Your task to perform on an android device: open app "McDonald's" (install if not already installed) Image 0: 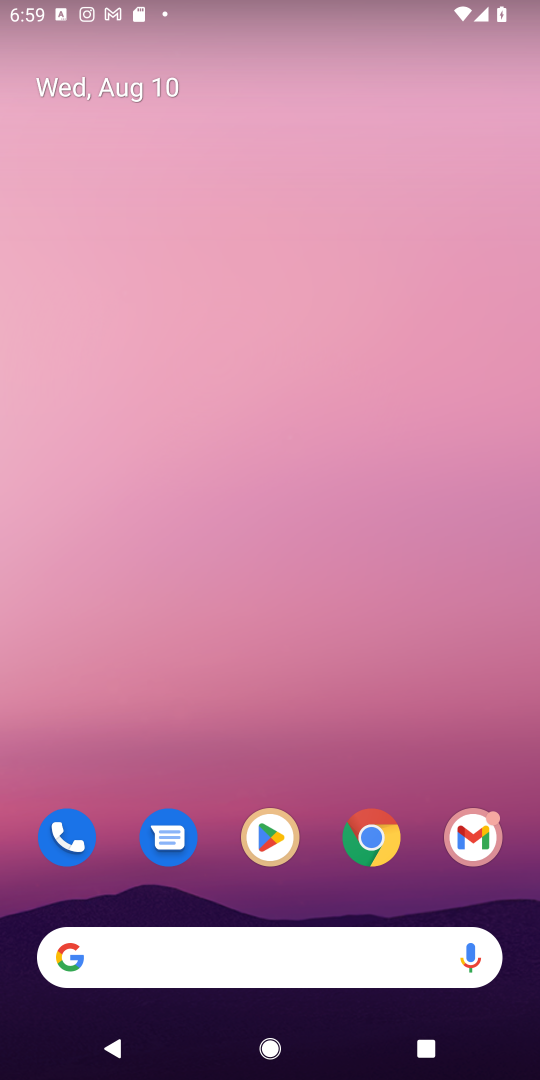
Step 0: click (270, 826)
Your task to perform on an android device: open app "McDonald's" (install if not already installed) Image 1: 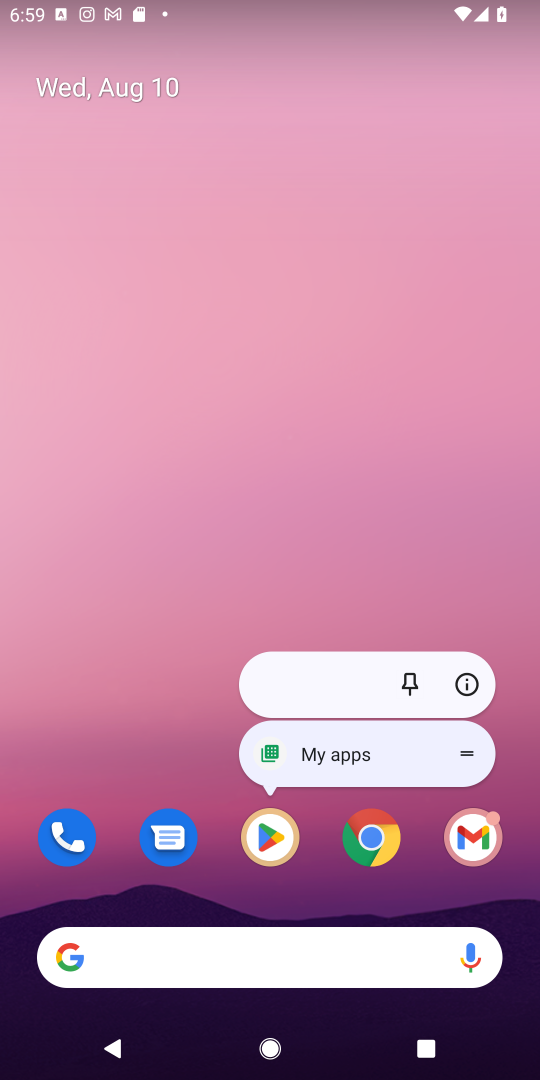
Step 1: click (267, 833)
Your task to perform on an android device: open app "McDonald's" (install if not already installed) Image 2: 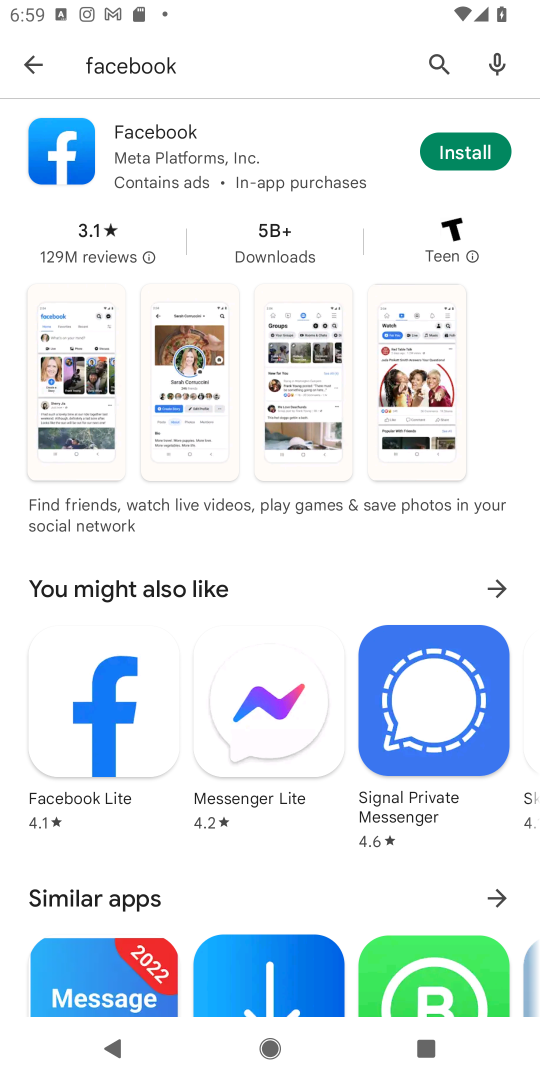
Step 2: click (441, 53)
Your task to perform on an android device: open app "McDonald's" (install if not already installed) Image 3: 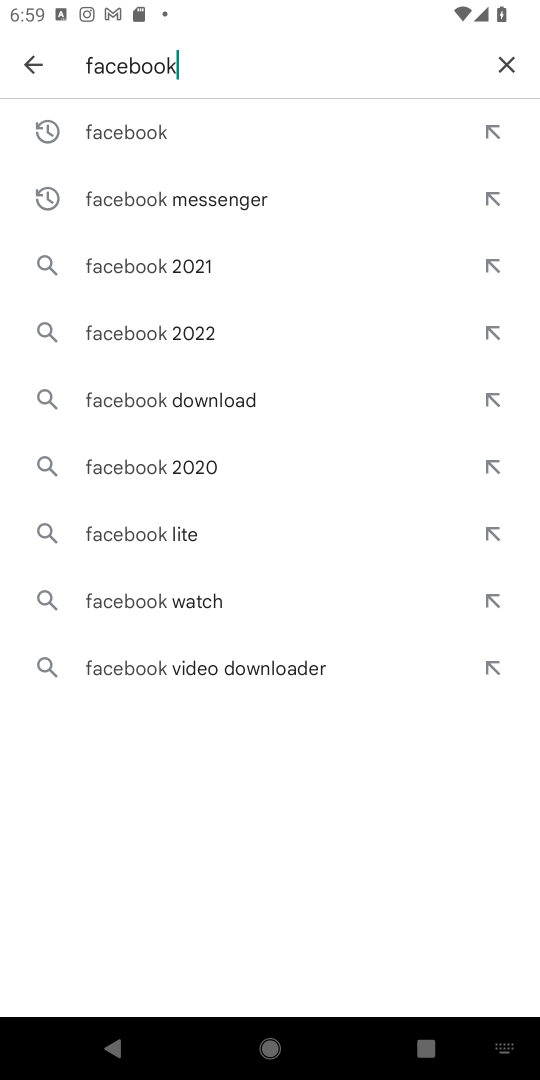
Step 3: click (511, 61)
Your task to perform on an android device: open app "McDonald's" (install if not already installed) Image 4: 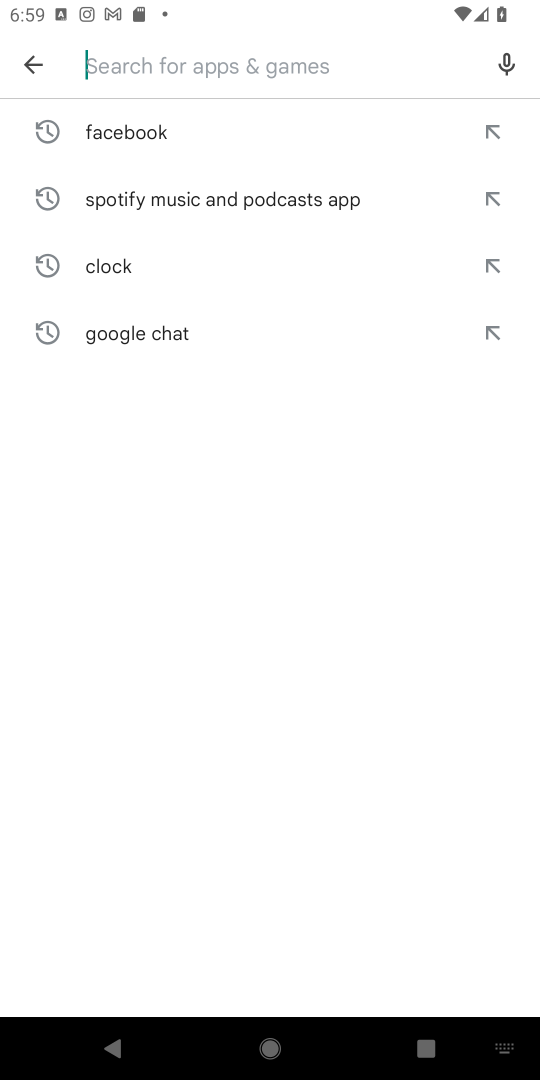
Step 4: type "McDonald's"
Your task to perform on an android device: open app "McDonald's" (install if not already installed) Image 5: 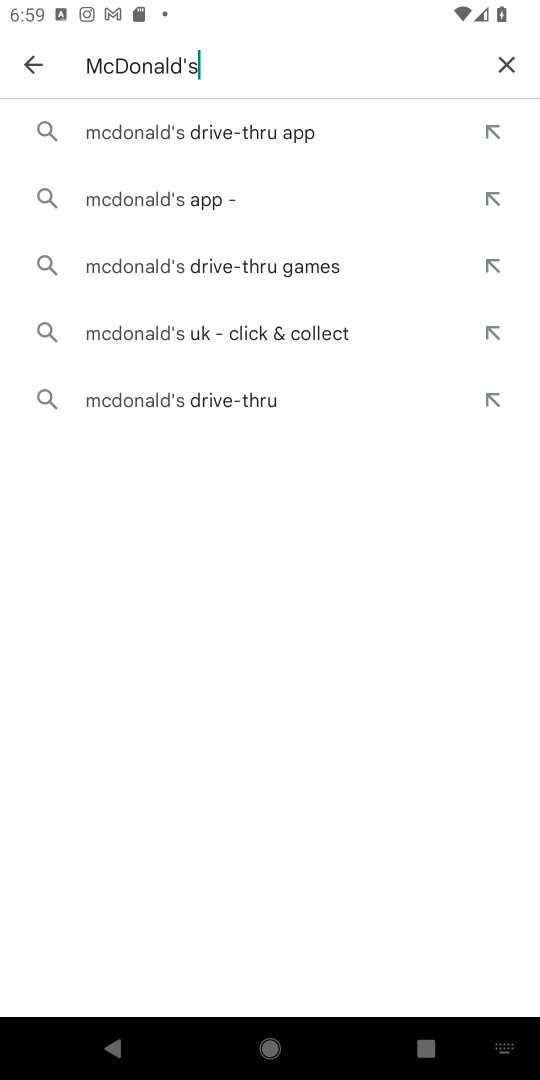
Step 5: click (232, 134)
Your task to perform on an android device: open app "McDonald's" (install if not already installed) Image 6: 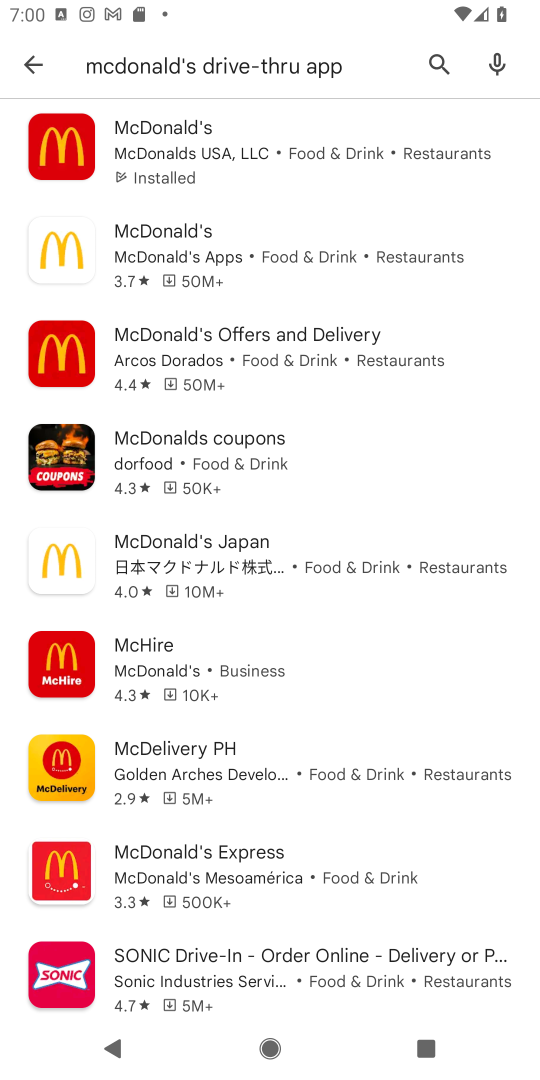
Step 6: click (290, 148)
Your task to perform on an android device: open app "McDonald's" (install if not already installed) Image 7: 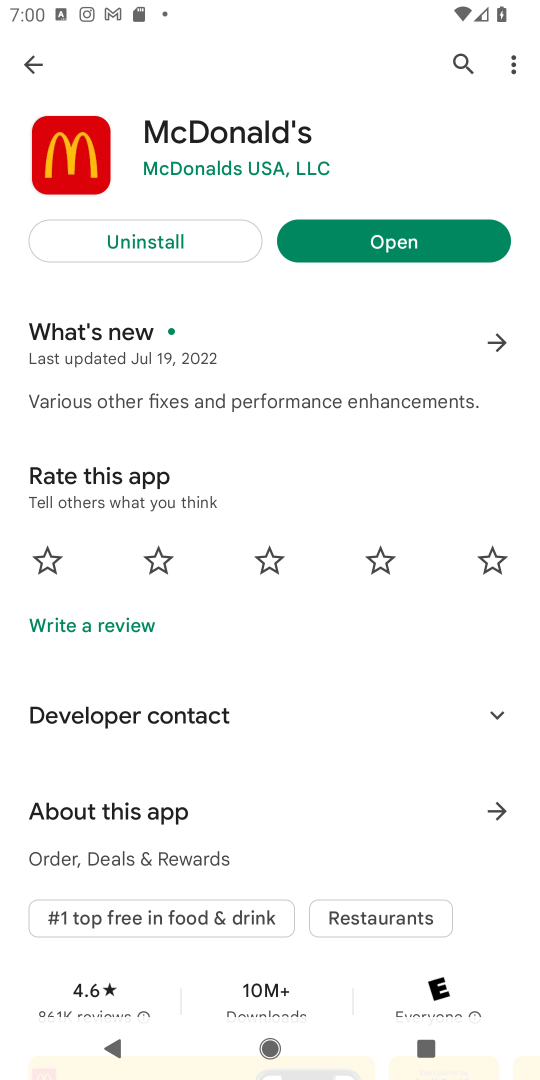
Step 7: click (373, 241)
Your task to perform on an android device: open app "McDonald's" (install if not already installed) Image 8: 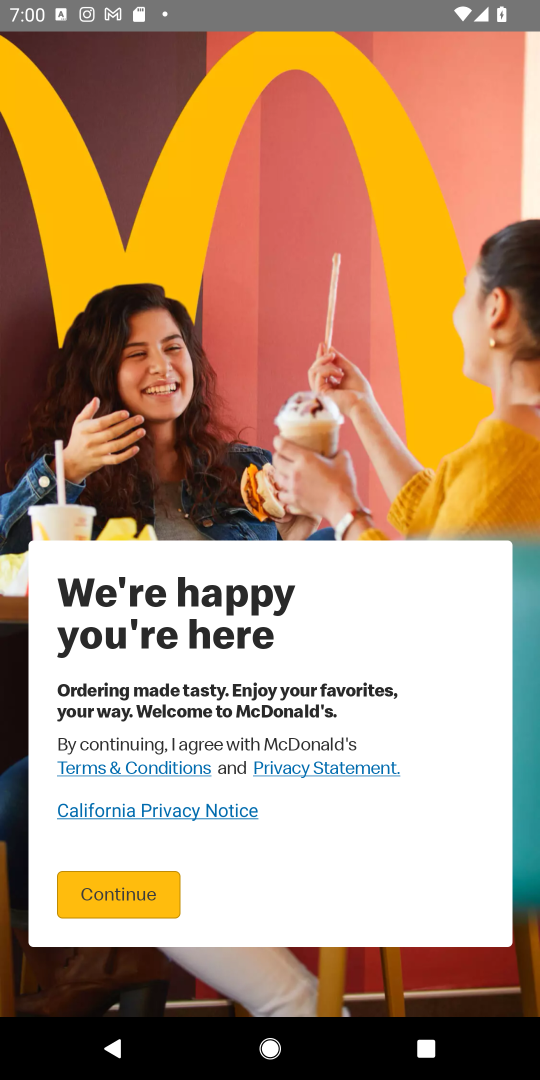
Step 8: task complete